Your task to perform on an android device: Check the weather Image 0: 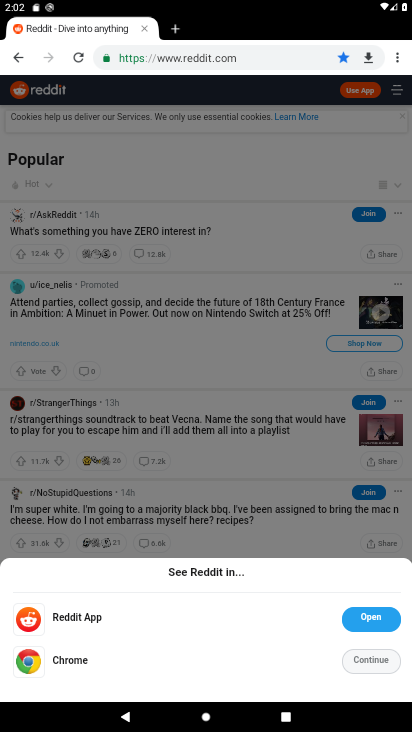
Step 0: press home button
Your task to perform on an android device: Check the weather Image 1: 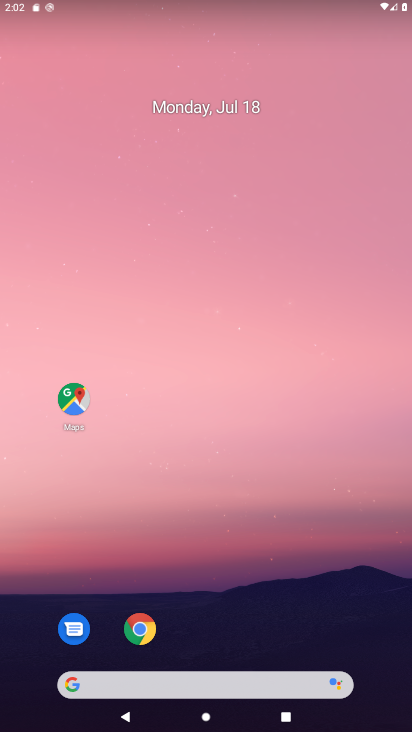
Step 1: click (138, 682)
Your task to perform on an android device: Check the weather Image 2: 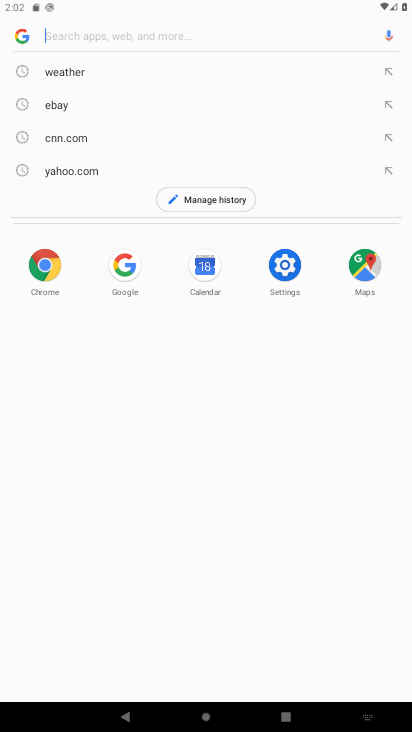
Step 2: click (67, 66)
Your task to perform on an android device: Check the weather Image 3: 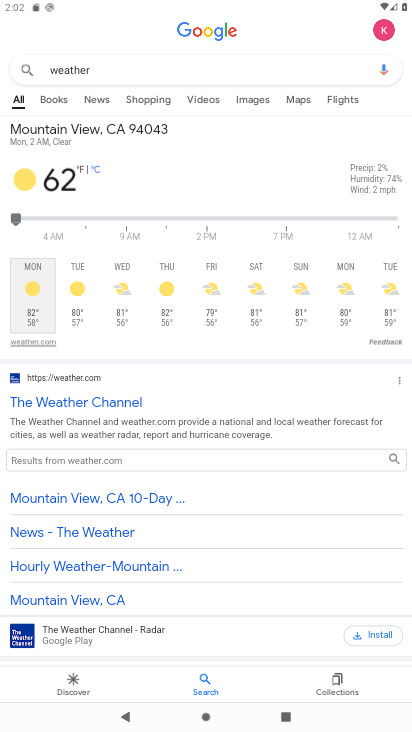
Step 3: task complete